Your task to perform on an android device: When is my next meeting? Image 0: 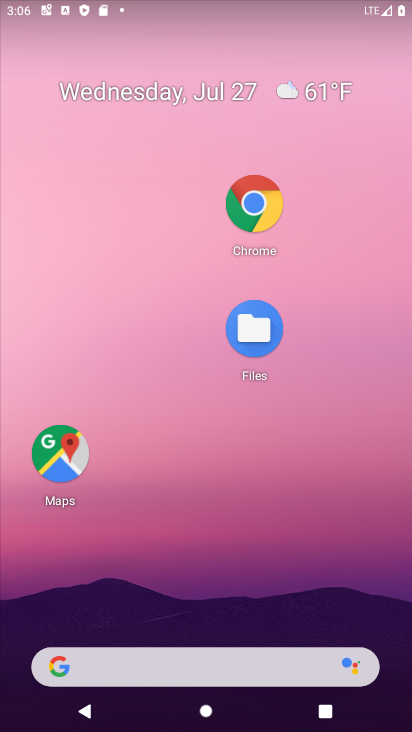
Step 0: drag from (187, 584) to (211, 156)
Your task to perform on an android device: When is my next meeting? Image 1: 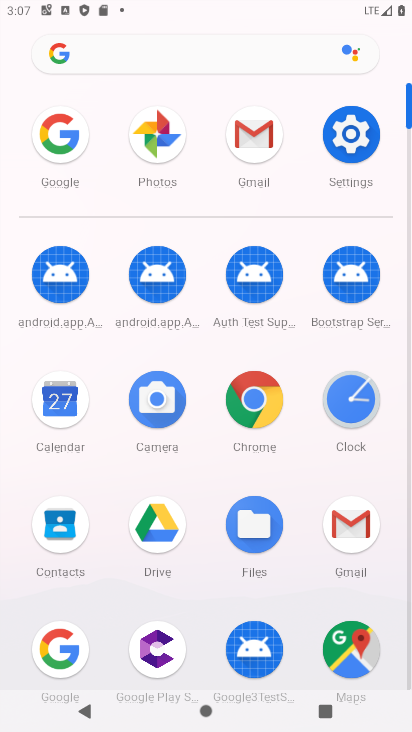
Step 1: drag from (194, 522) to (216, 320)
Your task to perform on an android device: When is my next meeting? Image 2: 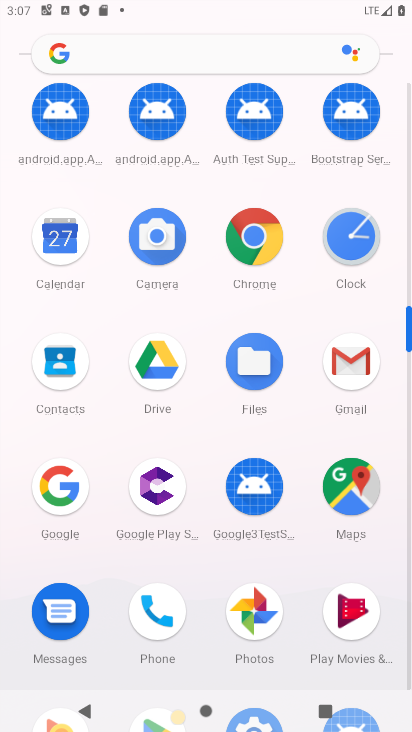
Step 2: click (203, 265)
Your task to perform on an android device: When is my next meeting? Image 3: 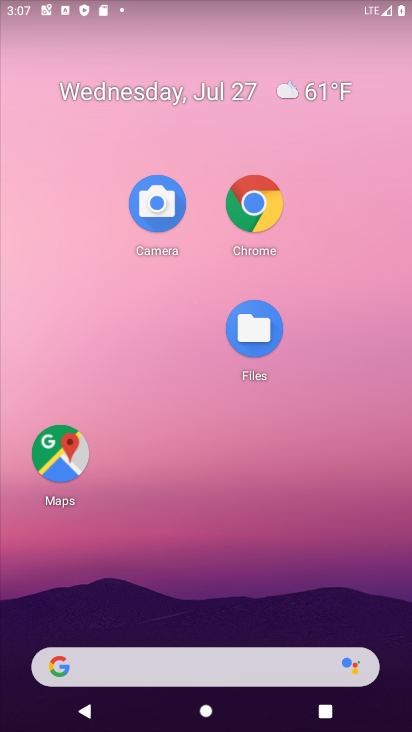
Step 3: drag from (180, 596) to (252, 103)
Your task to perform on an android device: When is my next meeting? Image 4: 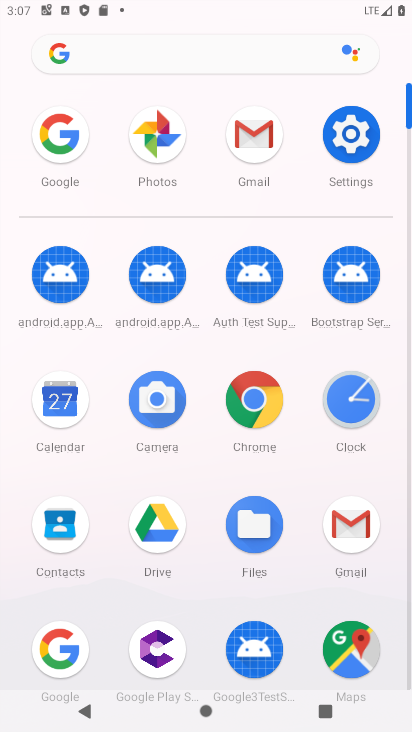
Step 4: click (71, 394)
Your task to perform on an android device: When is my next meeting? Image 5: 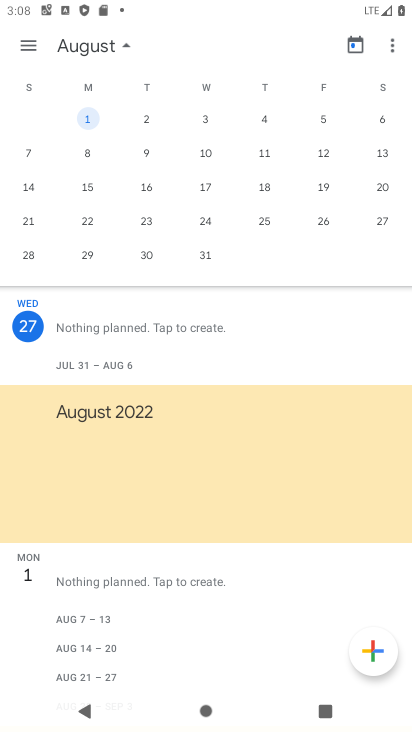
Step 5: drag from (42, 193) to (354, 230)
Your task to perform on an android device: When is my next meeting? Image 6: 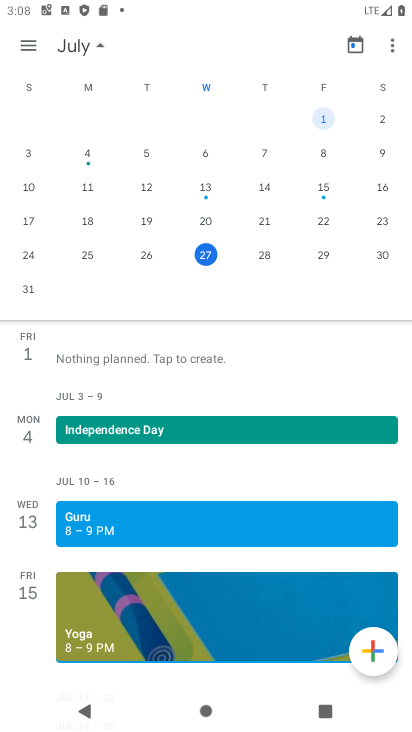
Step 6: click (273, 253)
Your task to perform on an android device: When is my next meeting? Image 7: 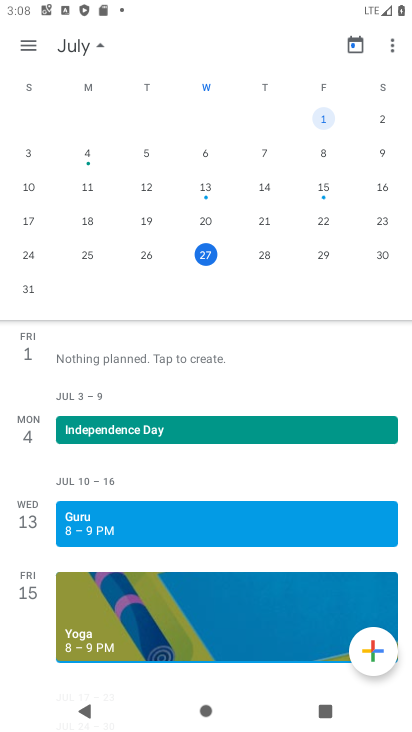
Step 7: click (289, 255)
Your task to perform on an android device: When is my next meeting? Image 8: 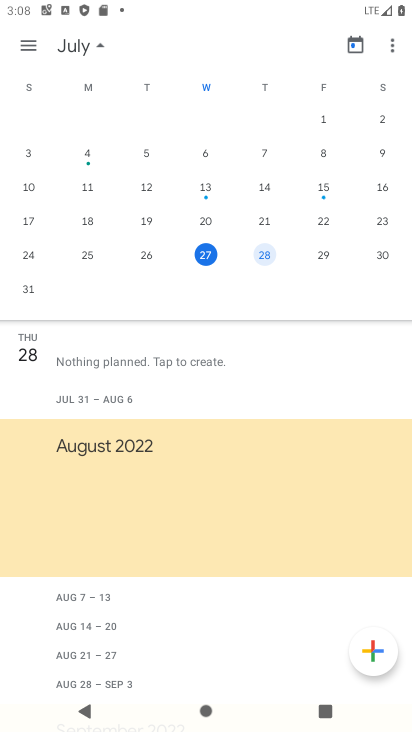
Step 8: task complete